Your task to perform on an android device: change the clock style Image 0: 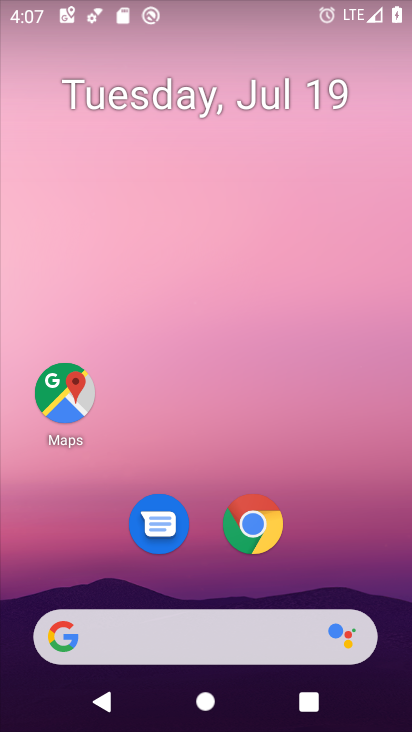
Step 0: click (411, 550)
Your task to perform on an android device: change the clock style Image 1: 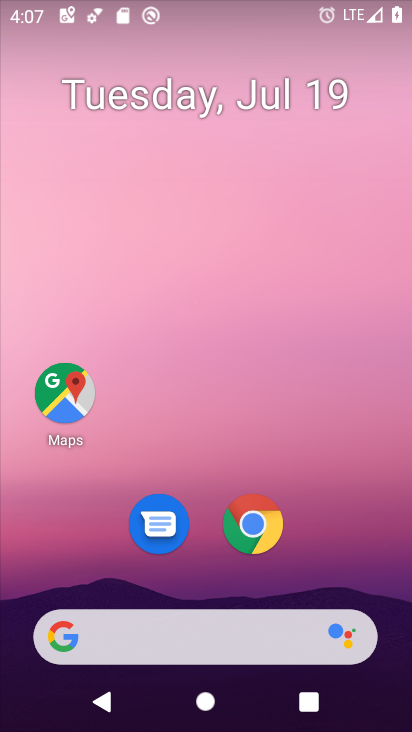
Step 1: drag from (366, 541) to (305, 27)
Your task to perform on an android device: change the clock style Image 2: 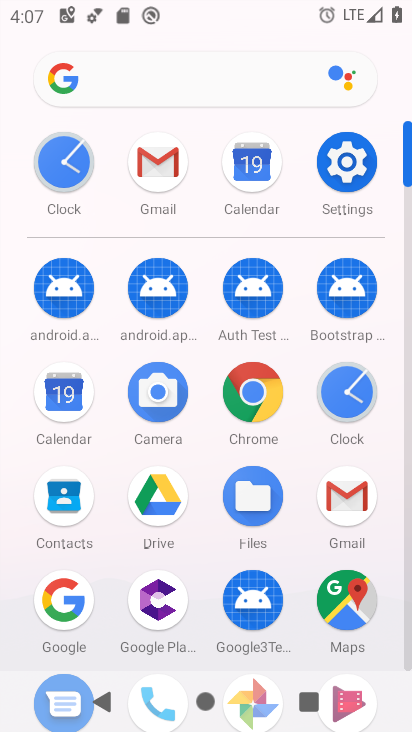
Step 2: click (340, 392)
Your task to perform on an android device: change the clock style Image 3: 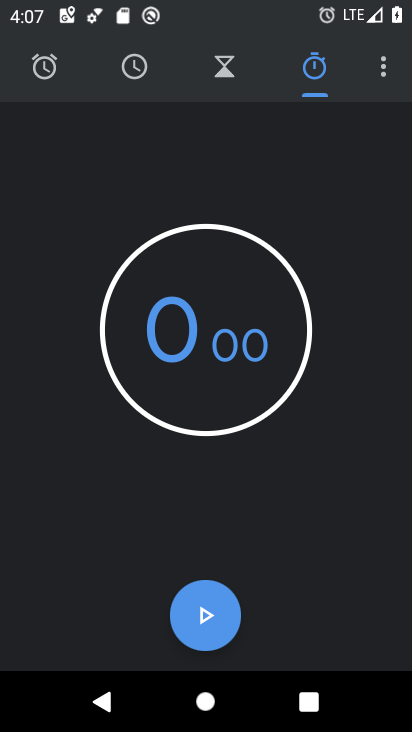
Step 3: click (137, 73)
Your task to perform on an android device: change the clock style Image 4: 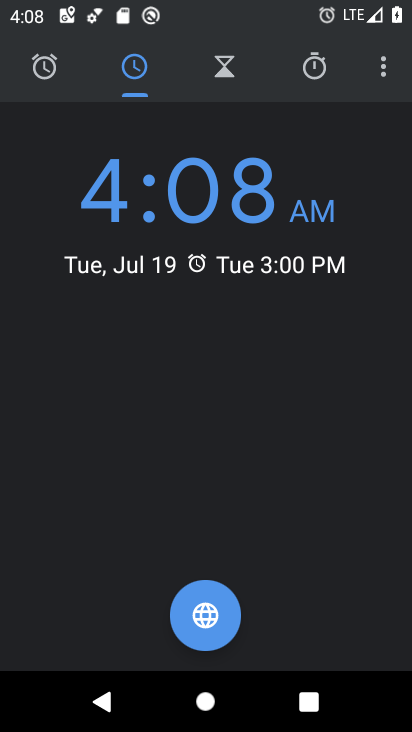
Step 4: click (378, 70)
Your task to perform on an android device: change the clock style Image 5: 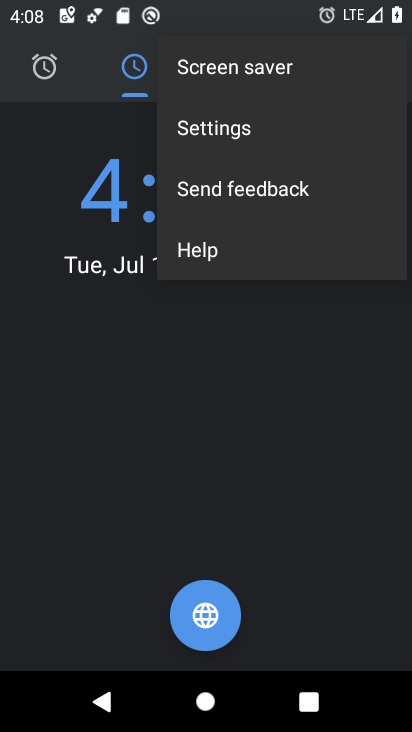
Step 5: click (273, 126)
Your task to perform on an android device: change the clock style Image 6: 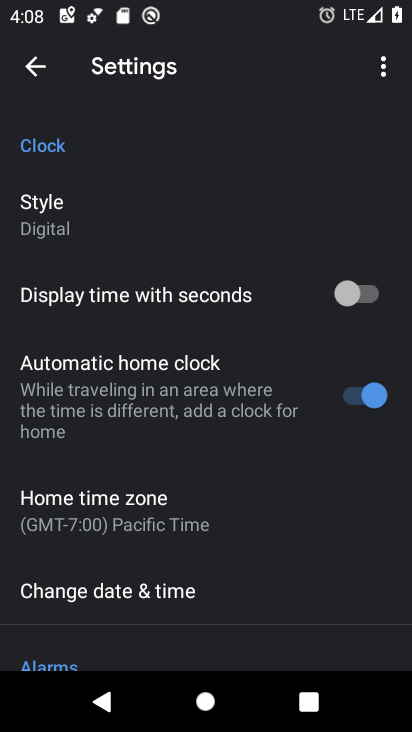
Step 6: click (76, 211)
Your task to perform on an android device: change the clock style Image 7: 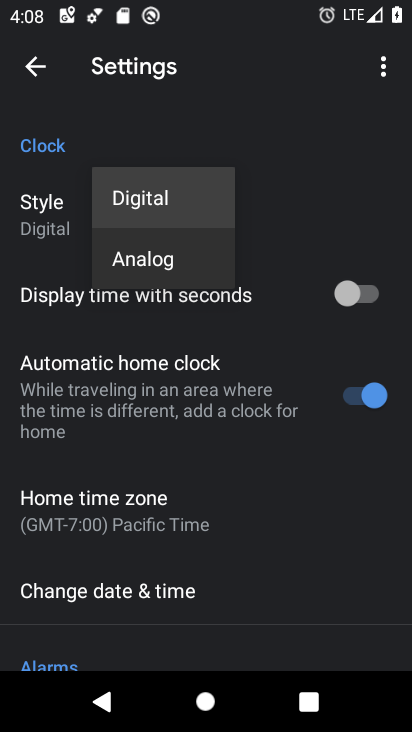
Step 7: click (127, 254)
Your task to perform on an android device: change the clock style Image 8: 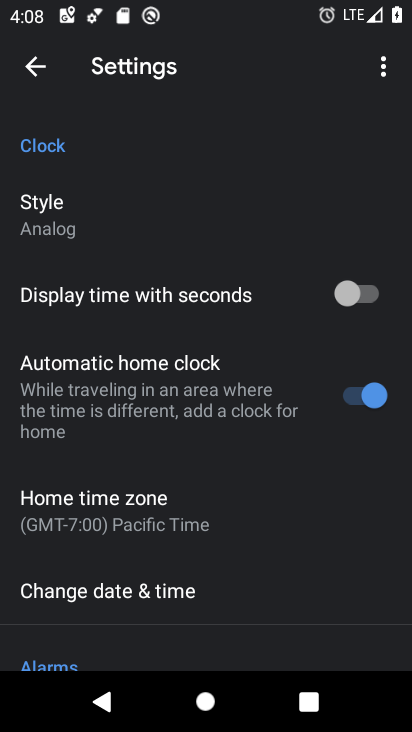
Step 8: task complete